Your task to perform on an android device: Open the settings Image 0: 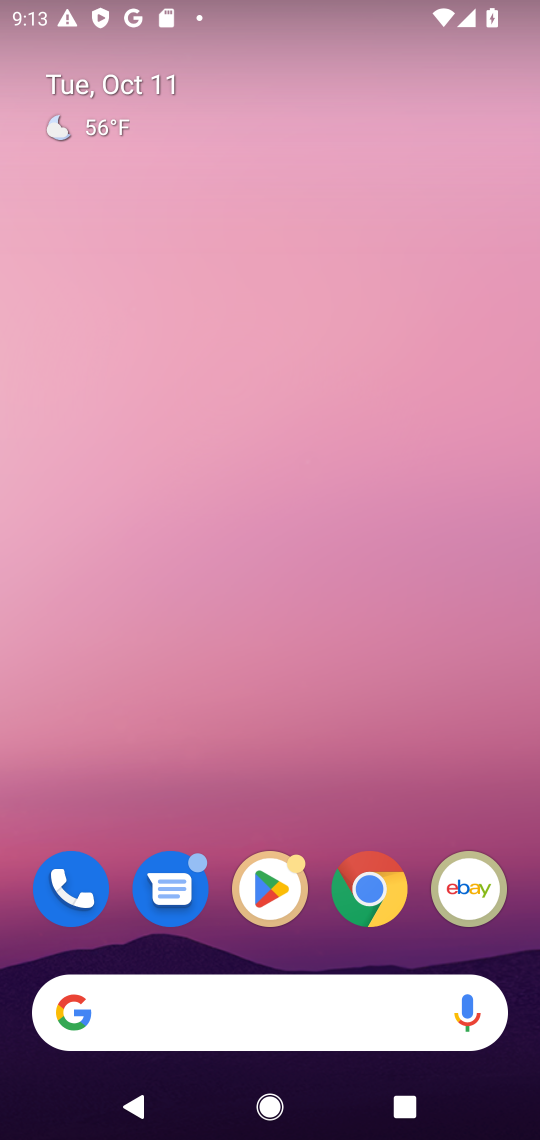
Step 0: drag from (283, 963) to (329, 54)
Your task to perform on an android device: Open the settings Image 1: 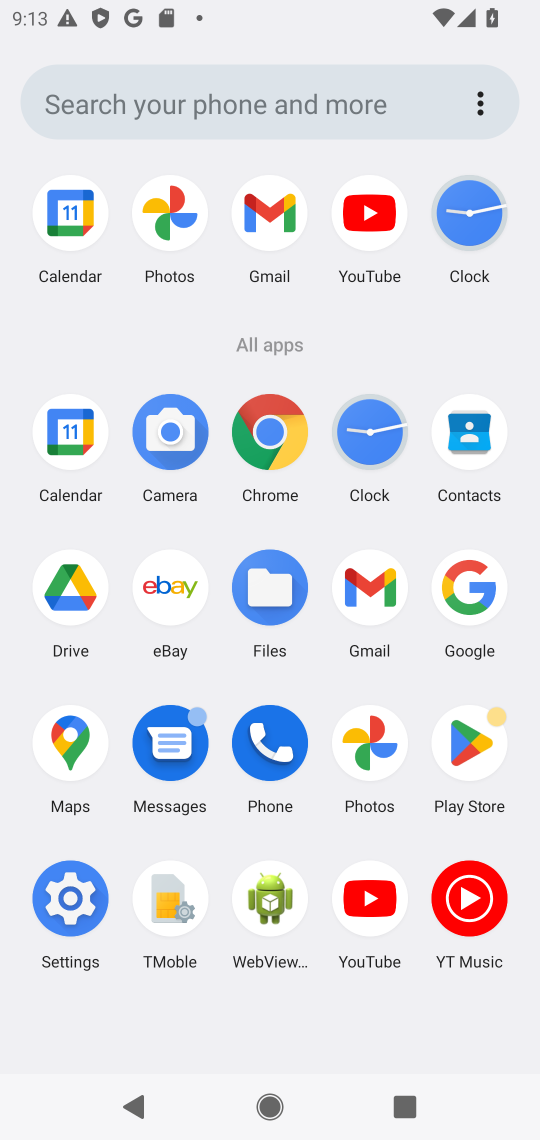
Step 1: click (54, 910)
Your task to perform on an android device: Open the settings Image 2: 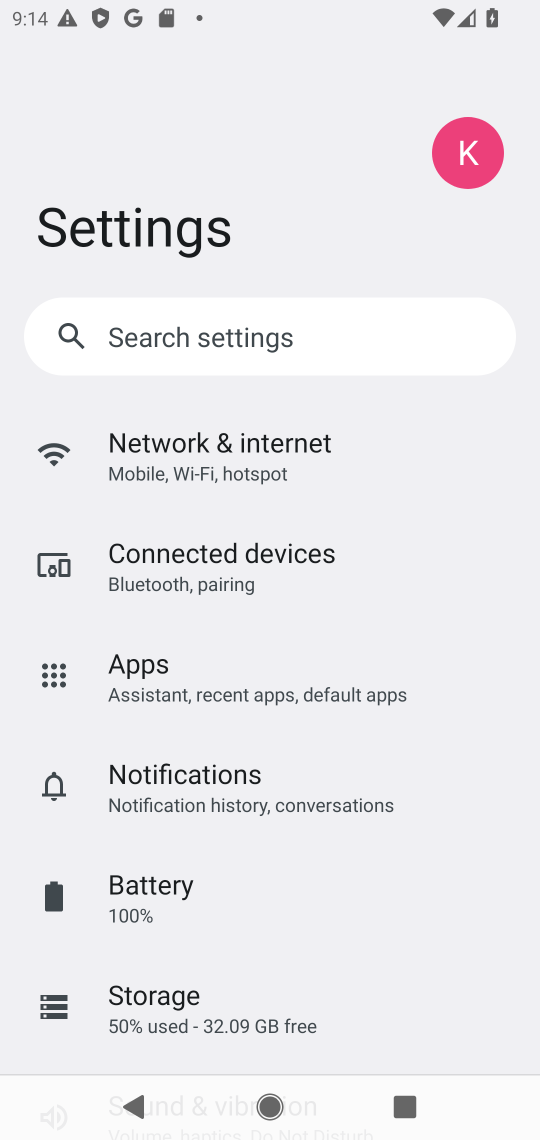
Step 2: task complete